Your task to perform on an android device: star an email in the gmail app Image 0: 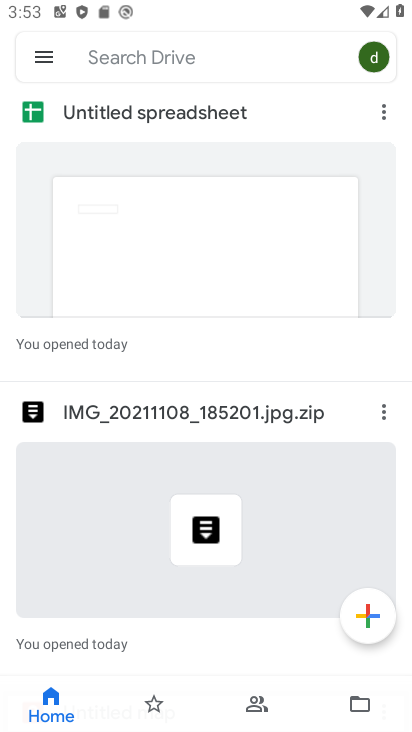
Step 0: press back button
Your task to perform on an android device: star an email in the gmail app Image 1: 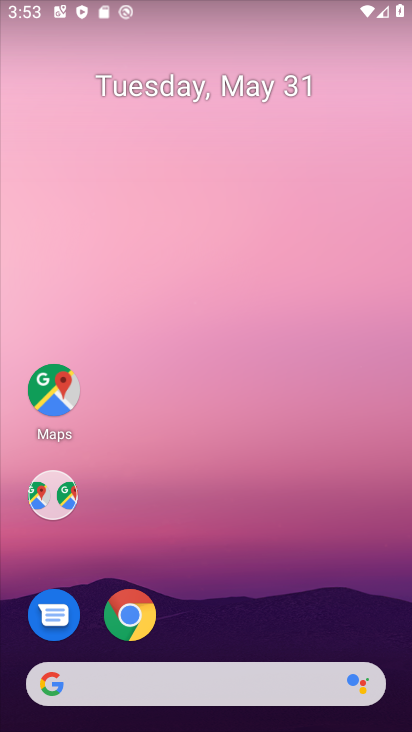
Step 1: drag from (260, 692) to (130, 116)
Your task to perform on an android device: star an email in the gmail app Image 2: 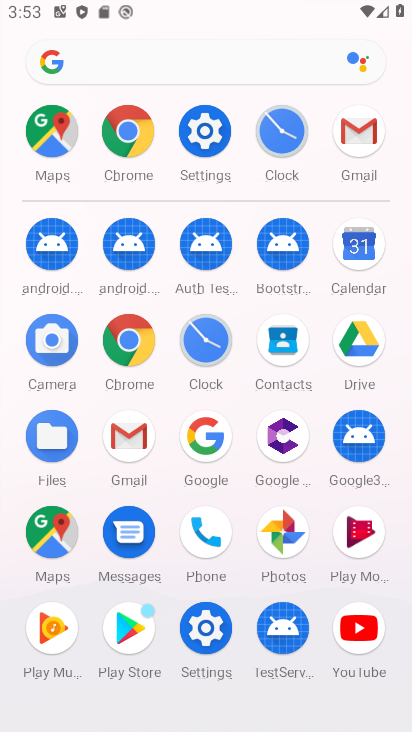
Step 2: click (110, 435)
Your task to perform on an android device: star an email in the gmail app Image 3: 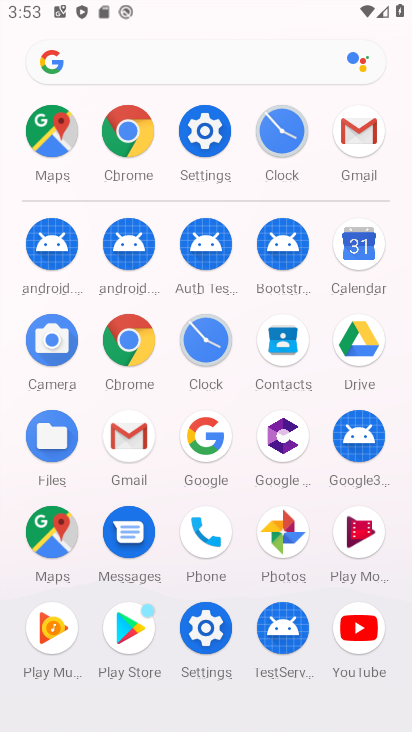
Step 3: click (120, 430)
Your task to perform on an android device: star an email in the gmail app Image 4: 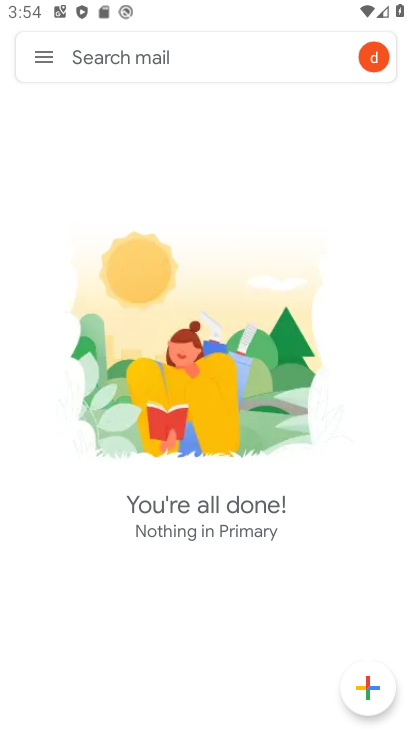
Step 4: click (47, 52)
Your task to perform on an android device: star an email in the gmail app Image 5: 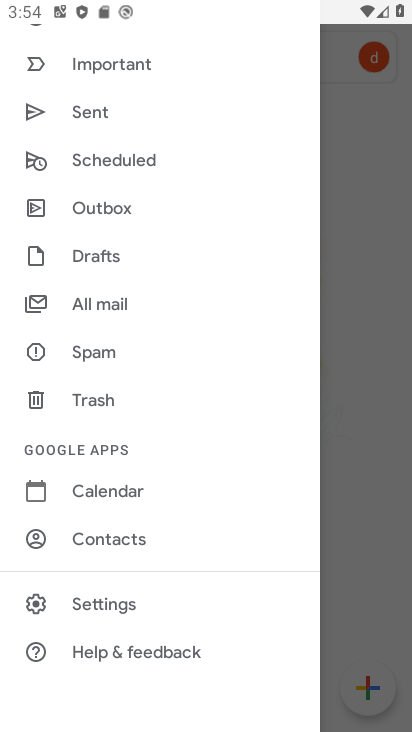
Step 5: click (91, 303)
Your task to perform on an android device: star an email in the gmail app Image 6: 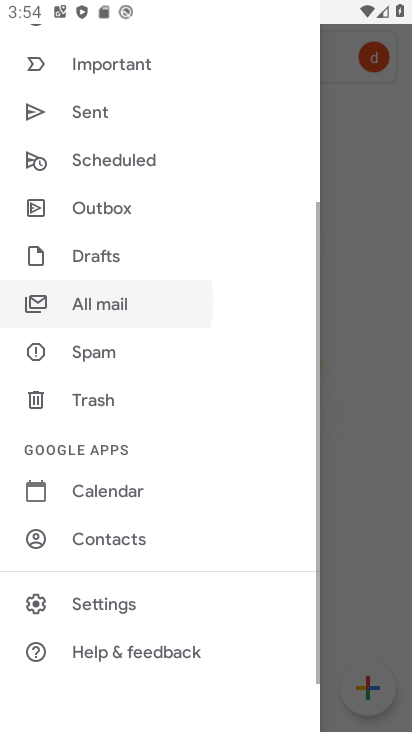
Step 6: click (96, 300)
Your task to perform on an android device: star an email in the gmail app Image 7: 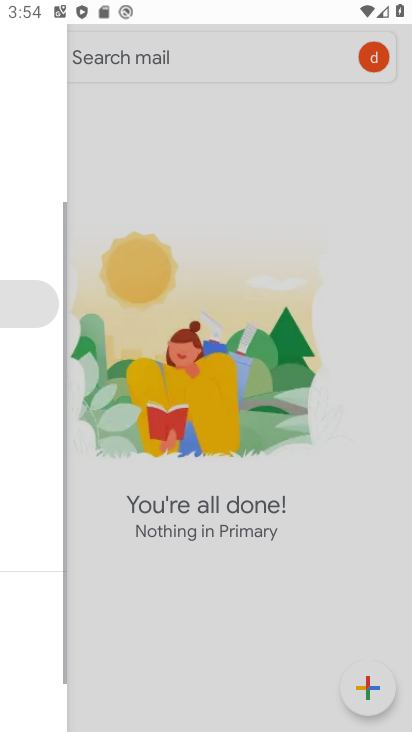
Step 7: click (96, 300)
Your task to perform on an android device: star an email in the gmail app Image 8: 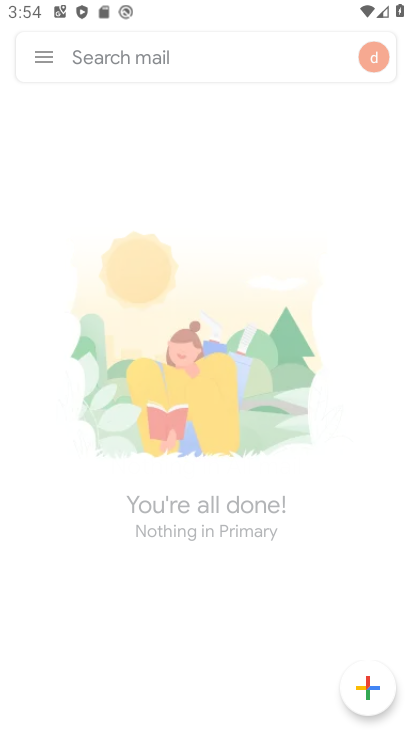
Step 8: click (97, 300)
Your task to perform on an android device: star an email in the gmail app Image 9: 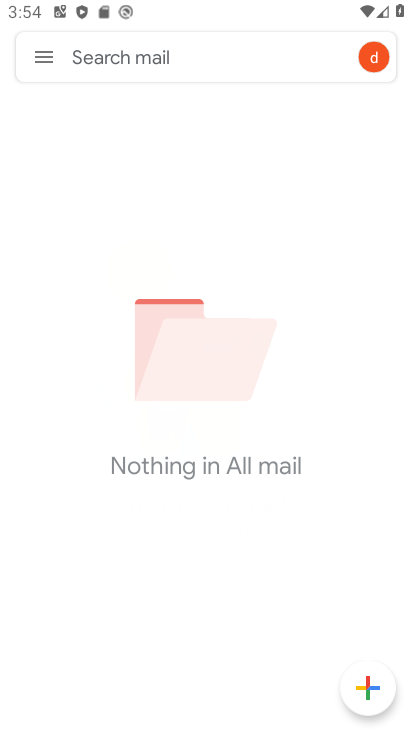
Step 9: click (100, 300)
Your task to perform on an android device: star an email in the gmail app Image 10: 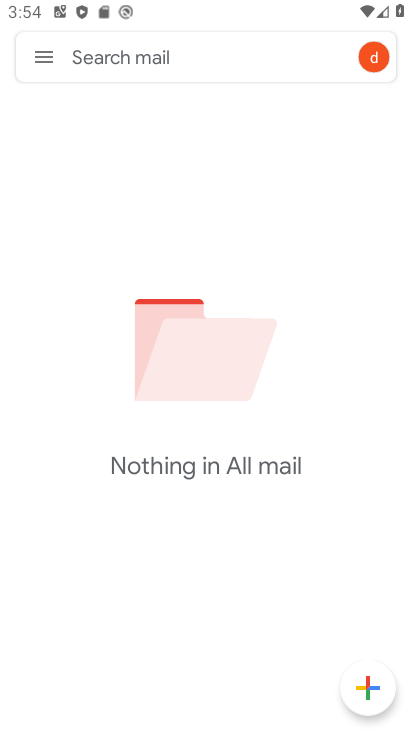
Step 10: task complete